Your task to perform on an android device: Open the phone app and click the voicemail tab. Image 0: 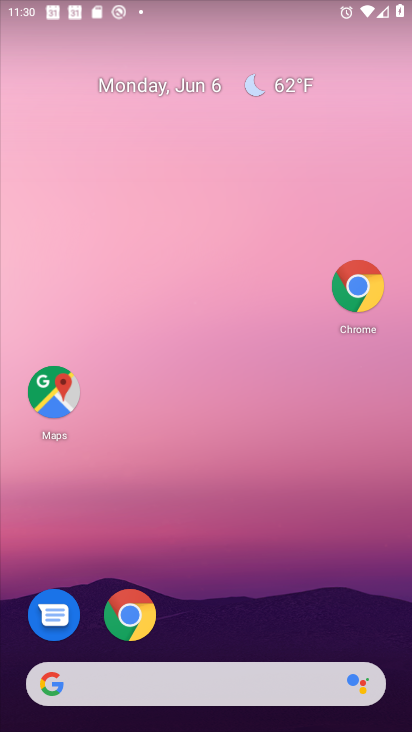
Step 0: drag from (277, 714) to (148, 49)
Your task to perform on an android device: Open the phone app and click the voicemail tab. Image 1: 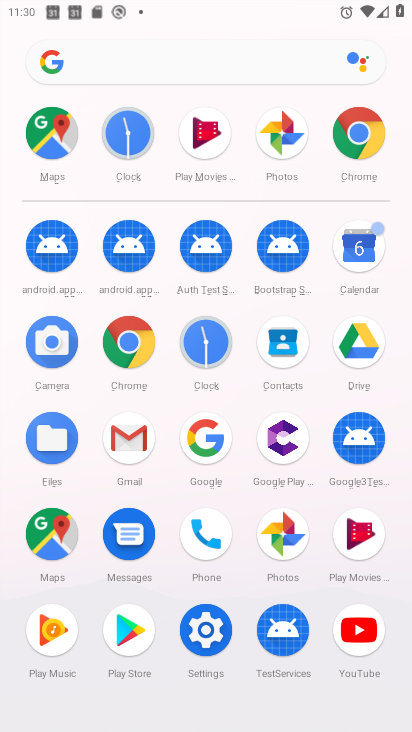
Step 1: click (213, 538)
Your task to perform on an android device: Open the phone app and click the voicemail tab. Image 2: 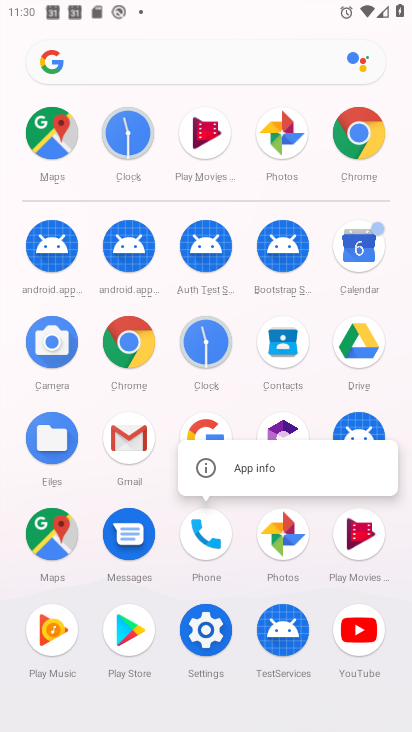
Step 2: click (209, 530)
Your task to perform on an android device: Open the phone app and click the voicemail tab. Image 3: 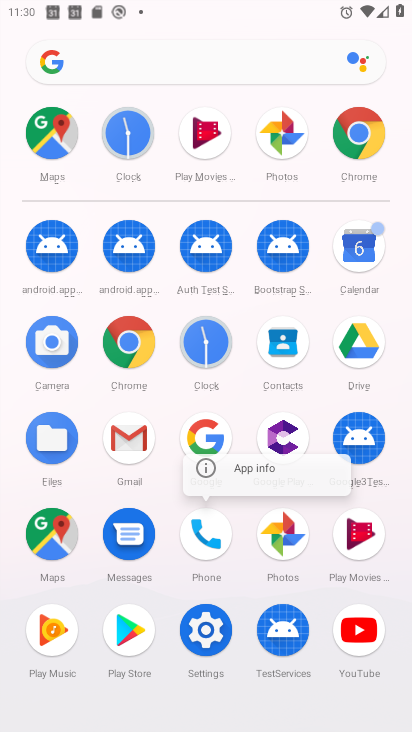
Step 3: click (209, 530)
Your task to perform on an android device: Open the phone app and click the voicemail tab. Image 4: 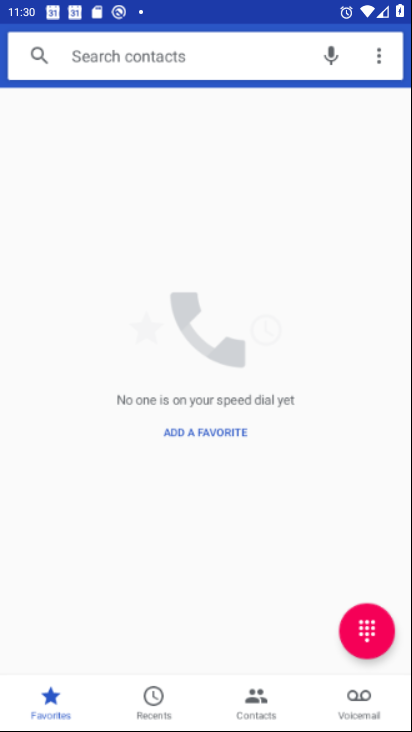
Step 4: click (208, 530)
Your task to perform on an android device: Open the phone app and click the voicemail tab. Image 5: 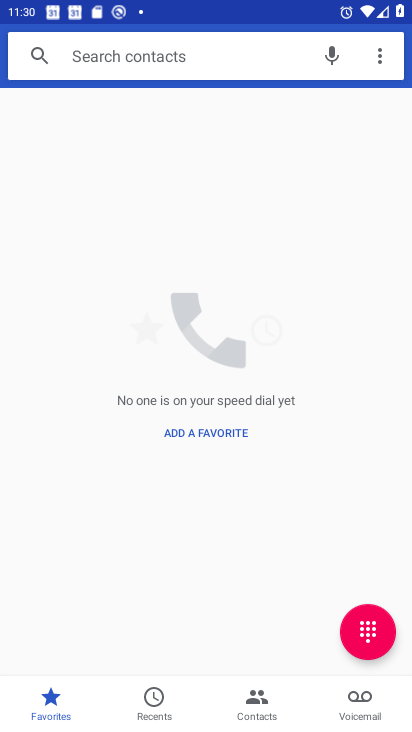
Step 5: click (359, 692)
Your task to perform on an android device: Open the phone app and click the voicemail tab. Image 6: 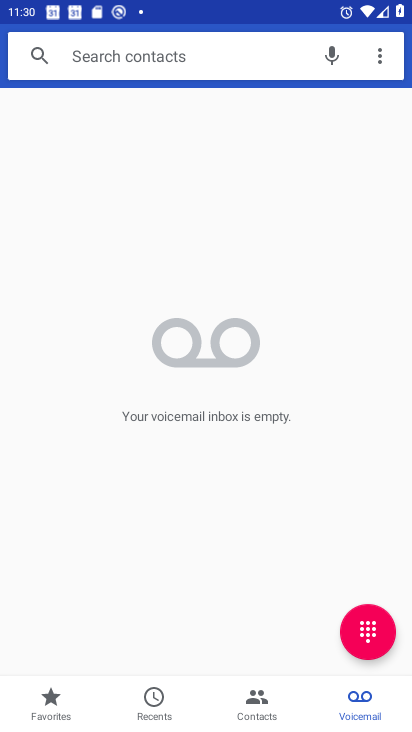
Step 6: task complete